Your task to perform on an android device: Go to Yahoo.com Image 0: 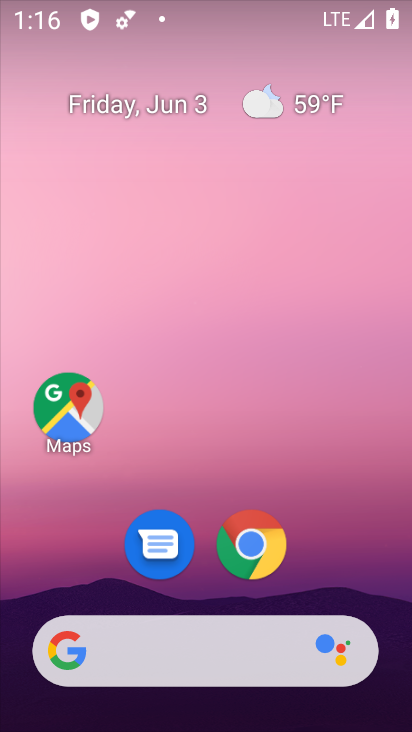
Step 0: click (10, 355)
Your task to perform on an android device: Go to Yahoo.com Image 1: 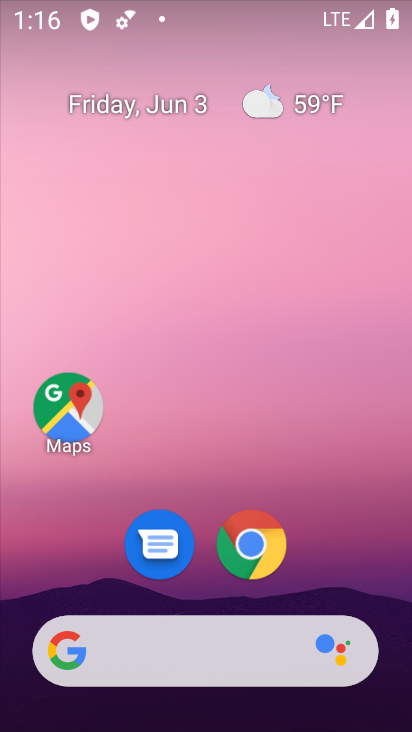
Step 1: click (245, 534)
Your task to perform on an android device: Go to Yahoo.com Image 2: 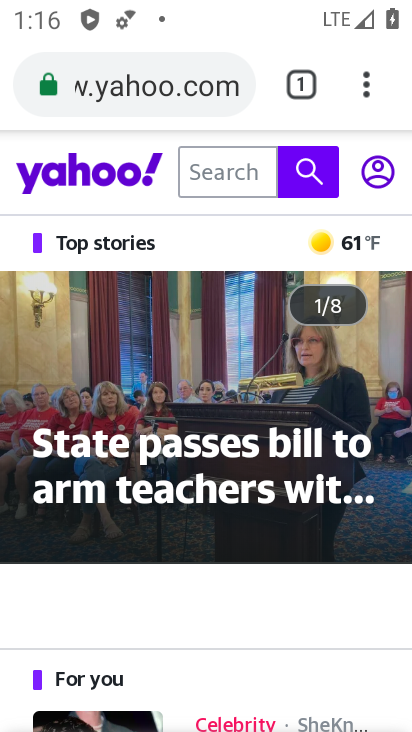
Step 2: task complete